Your task to perform on an android device: Open Android settings Image 0: 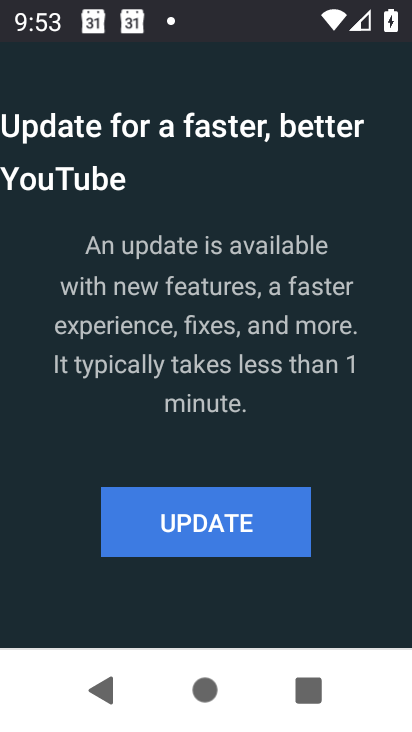
Step 0: press home button
Your task to perform on an android device: Open Android settings Image 1: 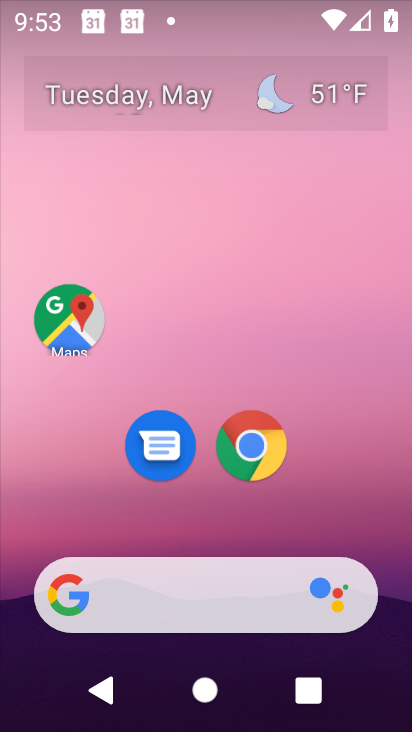
Step 1: drag from (246, 614) to (204, 93)
Your task to perform on an android device: Open Android settings Image 2: 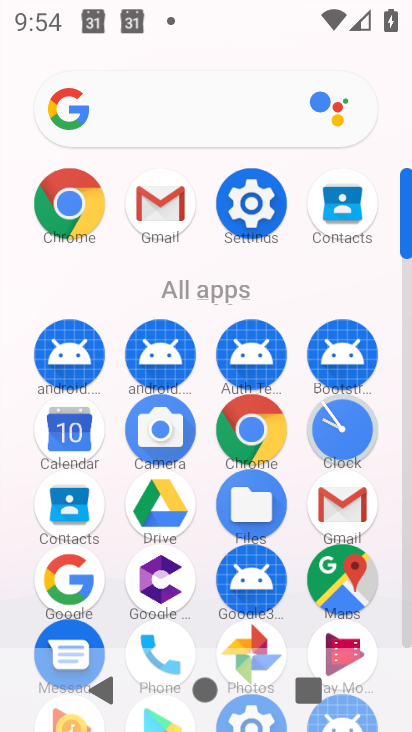
Step 2: click (250, 198)
Your task to perform on an android device: Open Android settings Image 3: 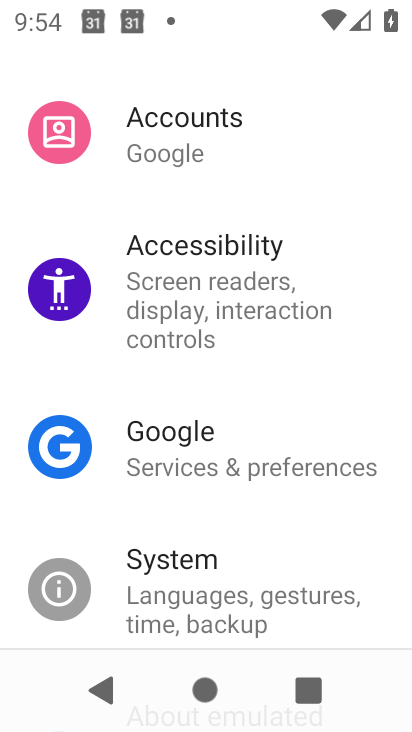
Step 3: drag from (240, 574) to (161, 8)
Your task to perform on an android device: Open Android settings Image 4: 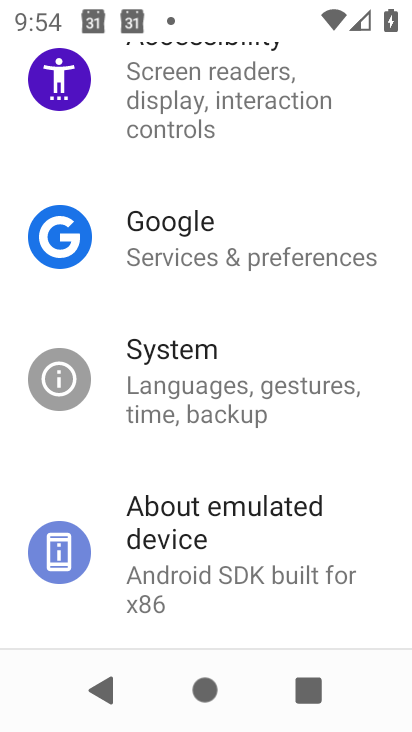
Step 4: click (320, 552)
Your task to perform on an android device: Open Android settings Image 5: 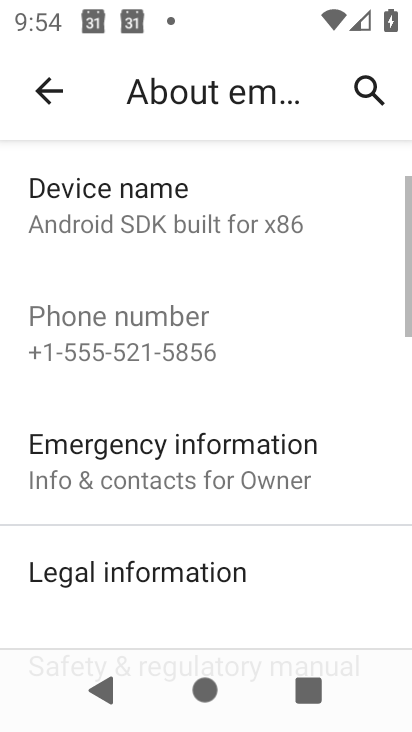
Step 5: task complete